Your task to perform on an android device: Open CNN.com Image 0: 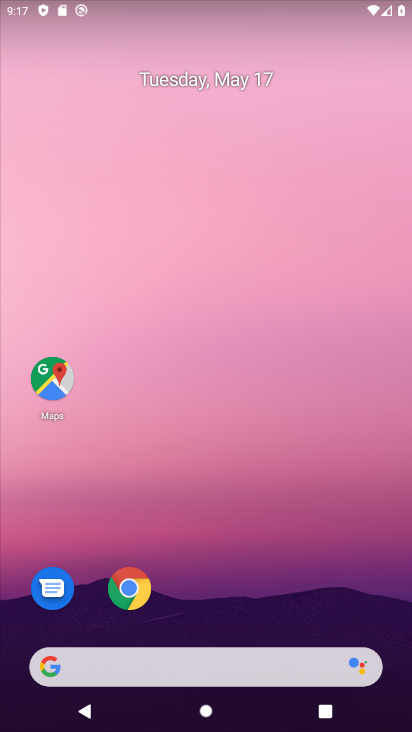
Step 0: drag from (228, 655) to (218, 9)
Your task to perform on an android device: Open CNN.com Image 1: 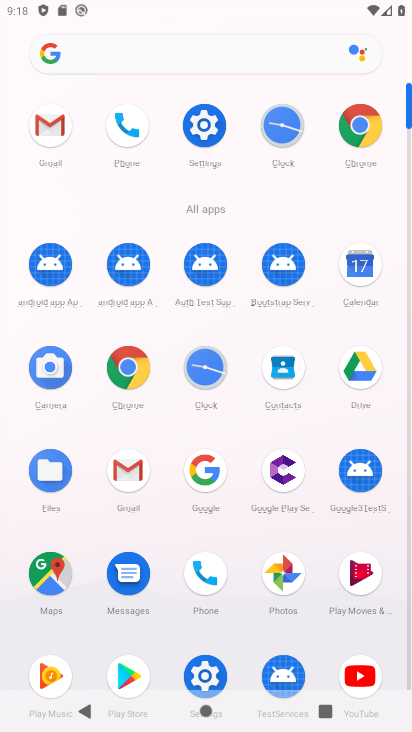
Step 1: click (128, 385)
Your task to perform on an android device: Open CNN.com Image 2: 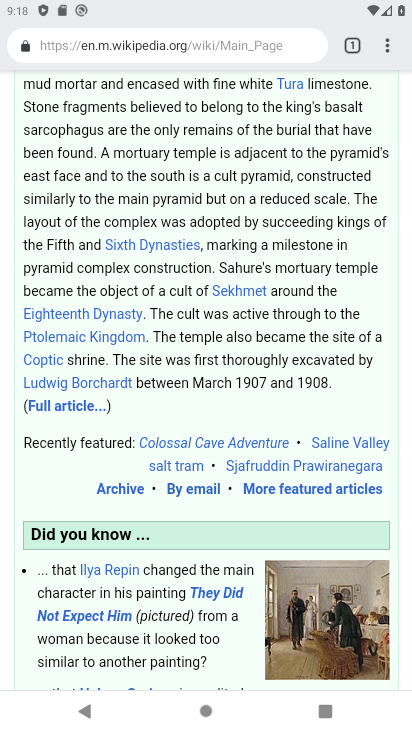
Step 2: drag from (247, 193) to (248, 621)
Your task to perform on an android device: Open CNN.com Image 3: 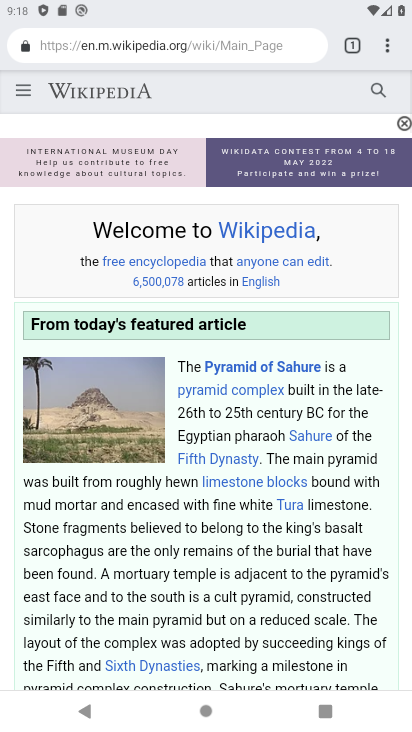
Step 3: click (347, 44)
Your task to perform on an android device: Open CNN.com Image 4: 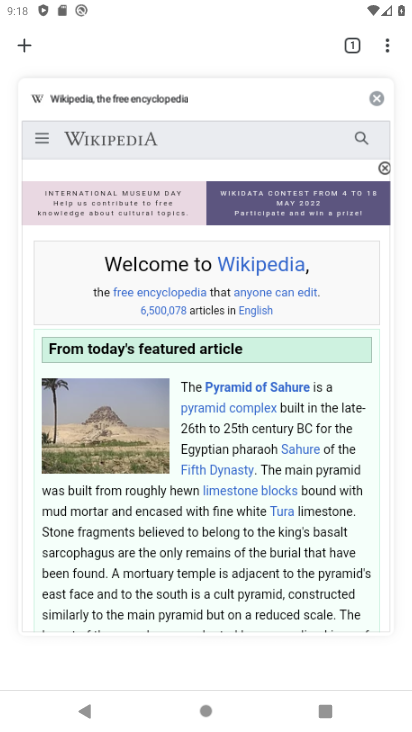
Step 4: click (15, 47)
Your task to perform on an android device: Open CNN.com Image 5: 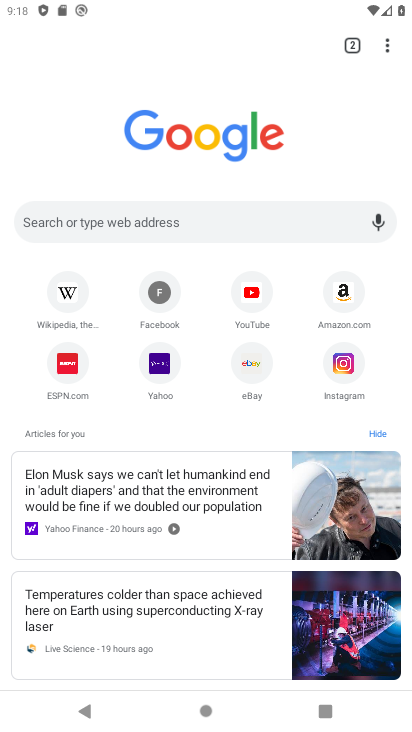
Step 5: click (163, 218)
Your task to perform on an android device: Open CNN.com Image 6: 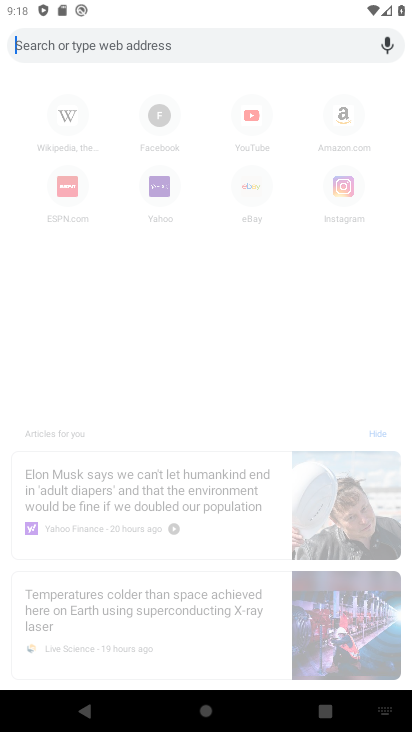
Step 6: type "cnn.com"
Your task to perform on an android device: Open CNN.com Image 7: 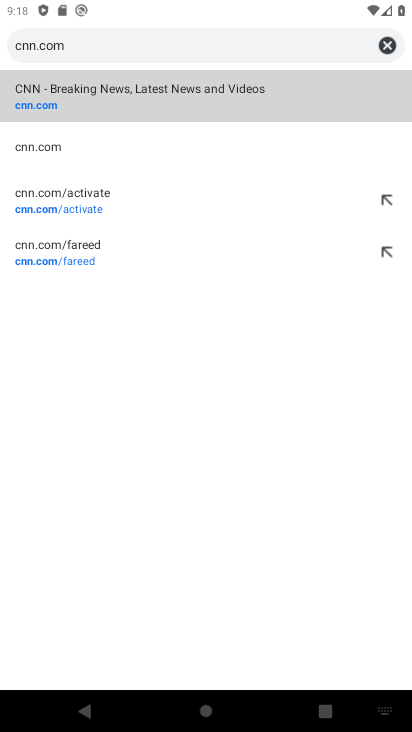
Step 7: click (53, 106)
Your task to perform on an android device: Open CNN.com Image 8: 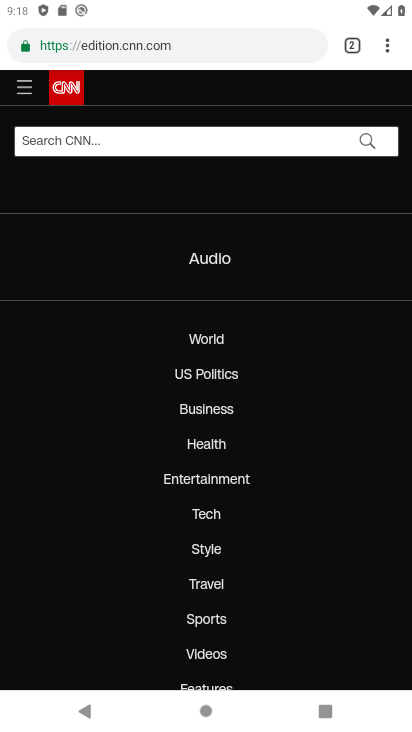
Step 8: task complete